Your task to perform on an android device: Show me popular games on the Play Store Image 0: 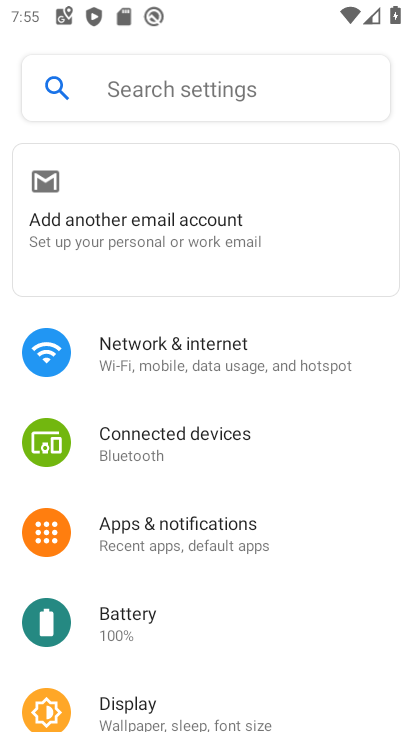
Step 0: drag from (158, 669) to (203, 209)
Your task to perform on an android device: Show me popular games on the Play Store Image 1: 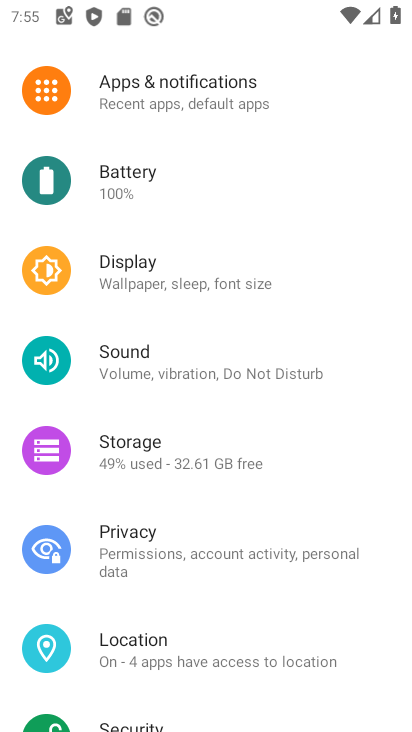
Step 1: press back button
Your task to perform on an android device: Show me popular games on the Play Store Image 2: 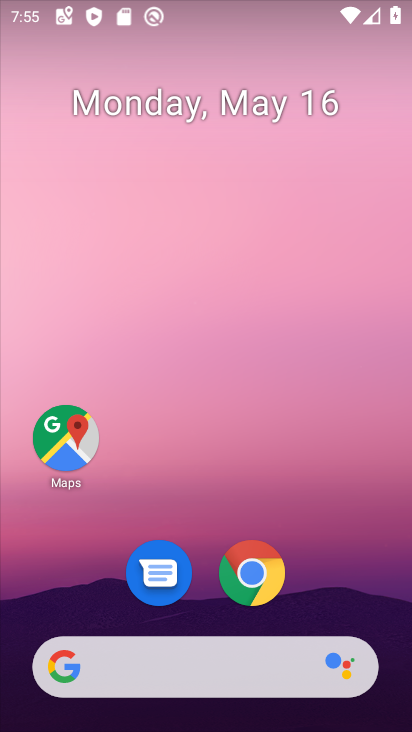
Step 2: drag from (336, 542) to (272, 82)
Your task to perform on an android device: Show me popular games on the Play Store Image 3: 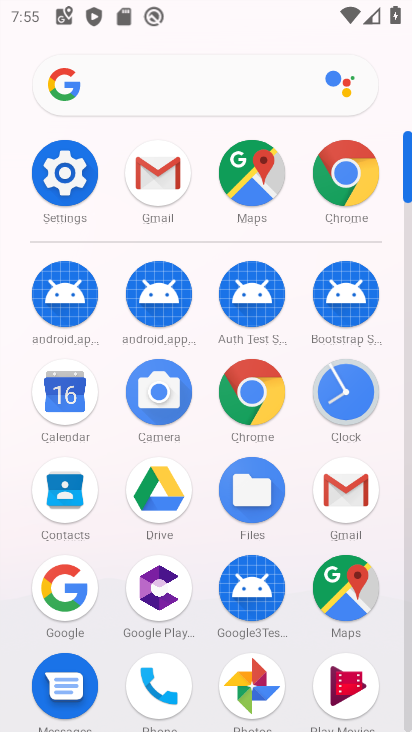
Step 3: drag from (393, 543) to (354, 226)
Your task to perform on an android device: Show me popular games on the Play Store Image 4: 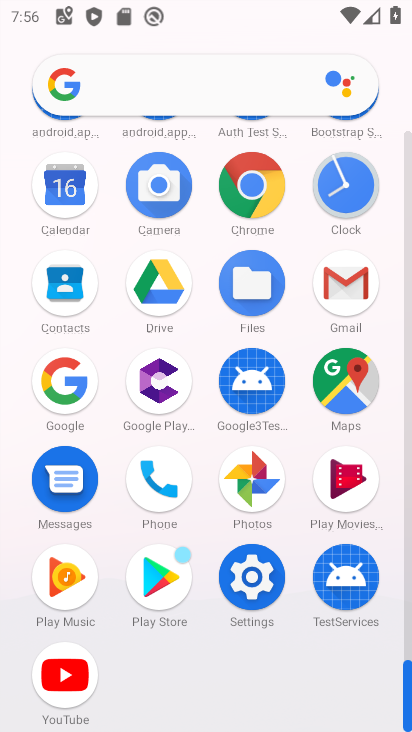
Step 4: click (158, 593)
Your task to perform on an android device: Show me popular games on the Play Store Image 5: 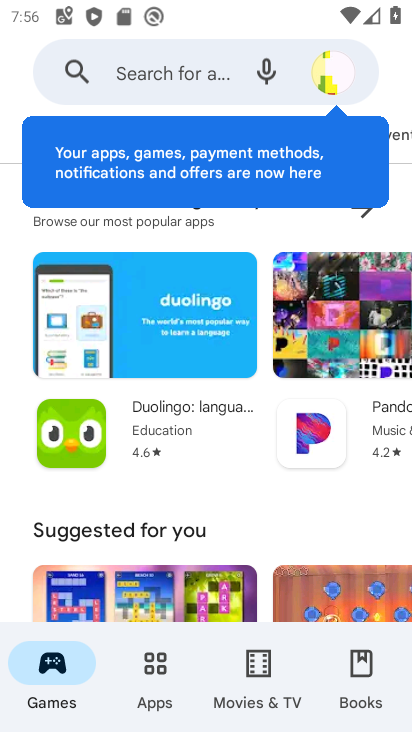
Step 5: click (171, 83)
Your task to perform on an android device: Show me popular games on the Play Store Image 6: 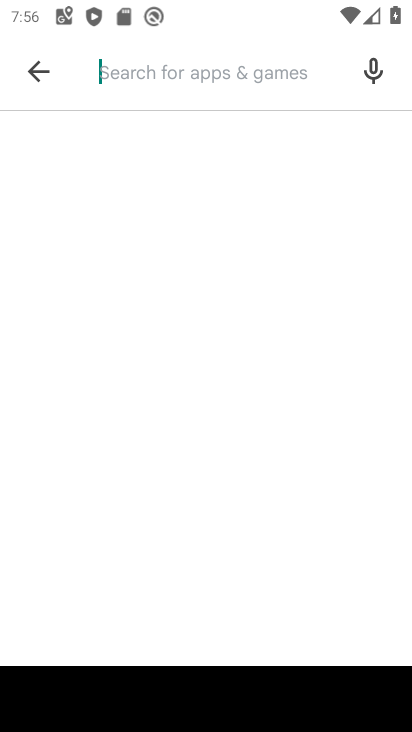
Step 6: type "popular games"
Your task to perform on an android device: Show me popular games on the Play Store Image 7: 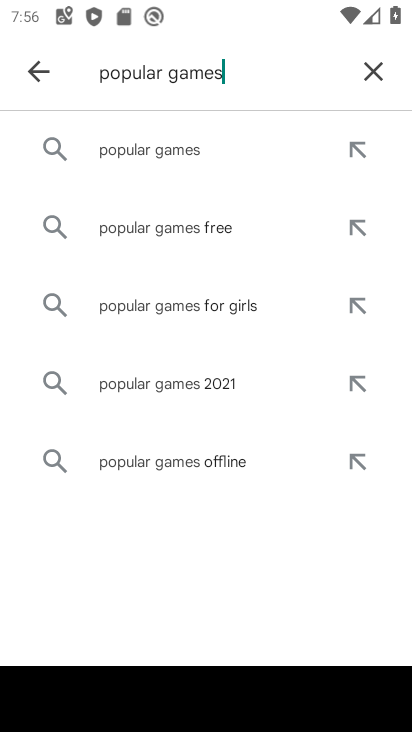
Step 7: click (162, 163)
Your task to perform on an android device: Show me popular games on the Play Store Image 8: 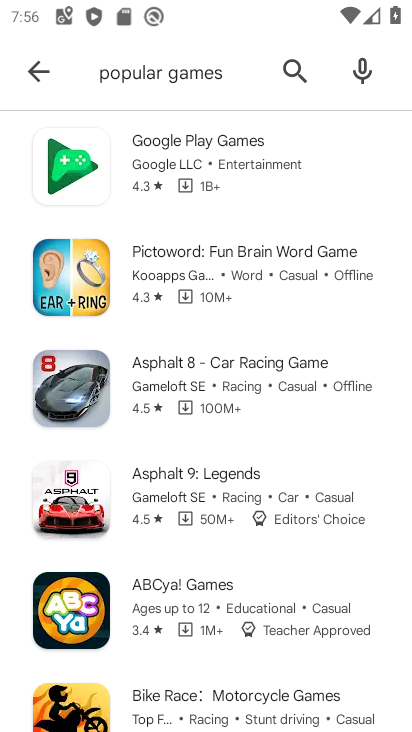
Step 8: task complete